Your task to perform on an android device: change the clock display to digital Image 0: 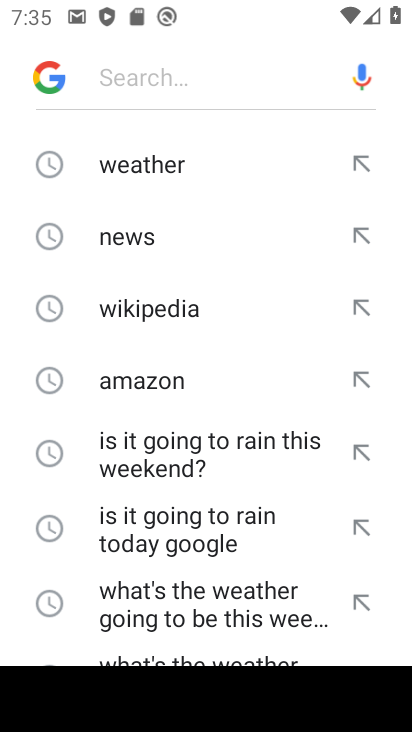
Step 0: press home button
Your task to perform on an android device: change the clock display to digital Image 1: 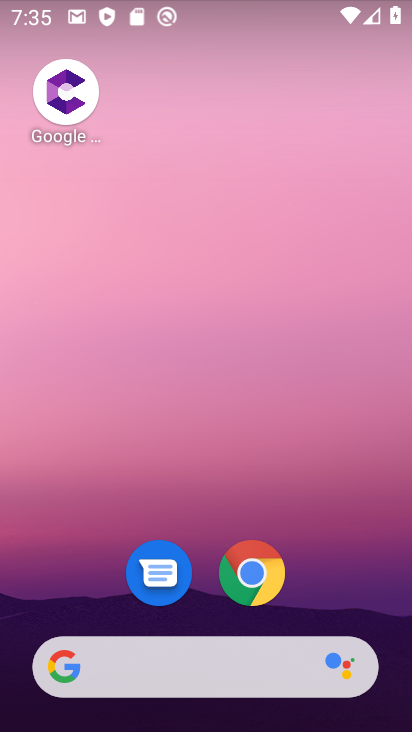
Step 1: drag from (199, 489) to (261, 2)
Your task to perform on an android device: change the clock display to digital Image 2: 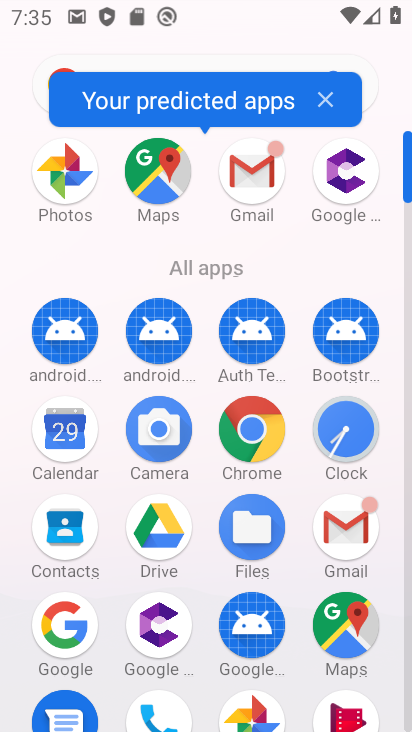
Step 2: drag from (203, 495) to (241, 119)
Your task to perform on an android device: change the clock display to digital Image 3: 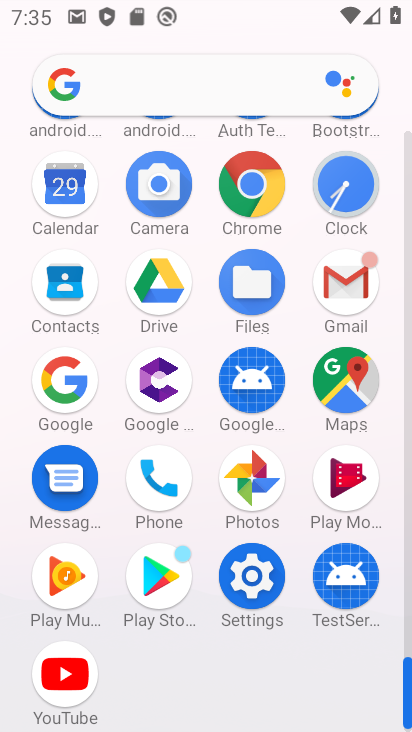
Step 3: drag from (195, 334) to (195, 385)
Your task to perform on an android device: change the clock display to digital Image 4: 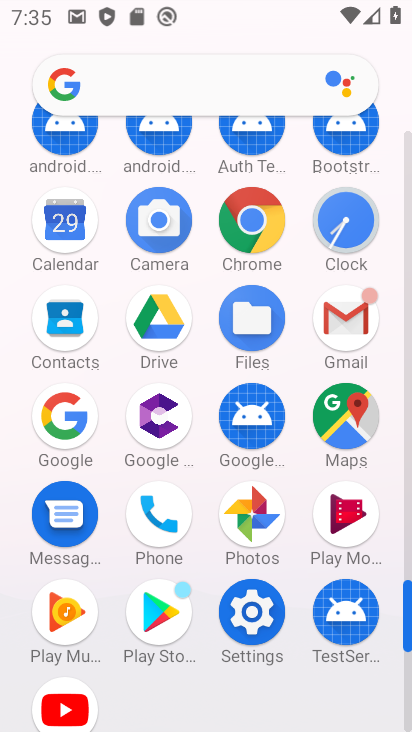
Step 4: click (350, 223)
Your task to perform on an android device: change the clock display to digital Image 5: 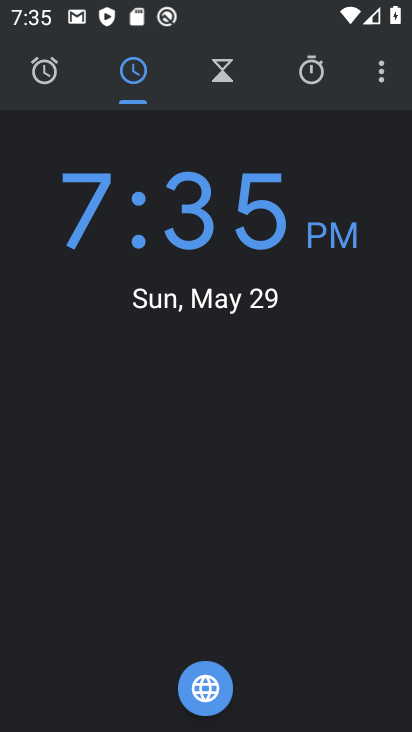
Step 5: click (384, 80)
Your task to perform on an android device: change the clock display to digital Image 6: 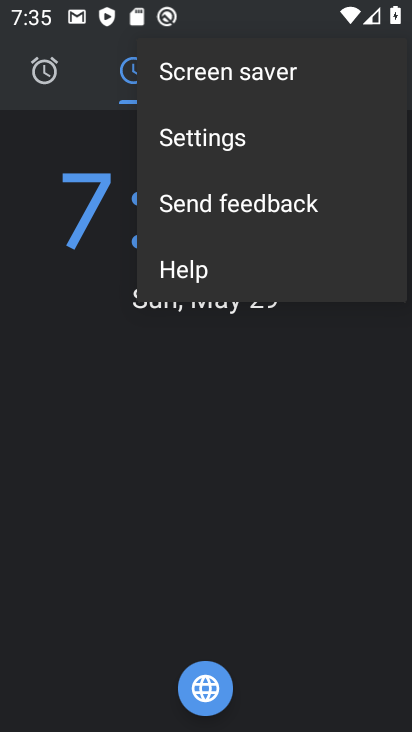
Step 6: click (274, 138)
Your task to perform on an android device: change the clock display to digital Image 7: 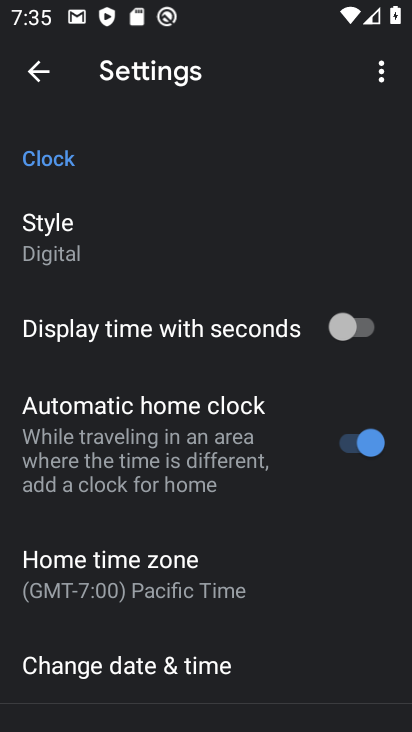
Step 7: click (106, 257)
Your task to perform on an android device: change the clock display to digital Image 8: 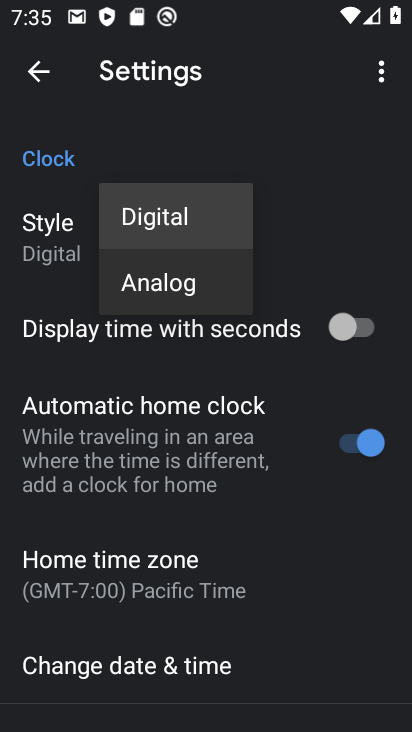
Step 8: click (133, 278)
Your task to perform on an android device: change the clock display to digital Image 9: 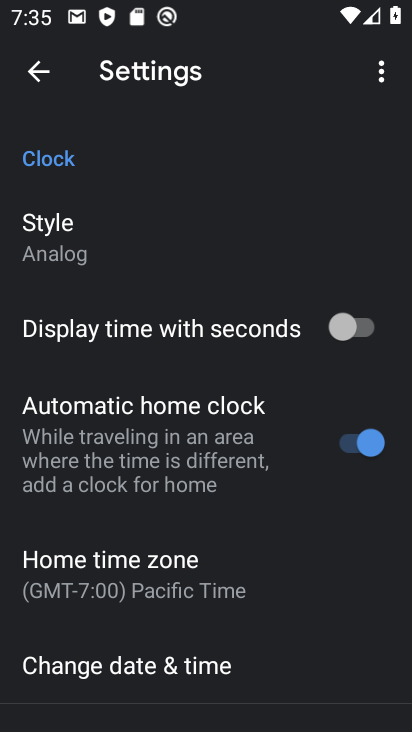
Step 9: task complete